Your task to perform on an android device: turn on sleep mode Image 0: 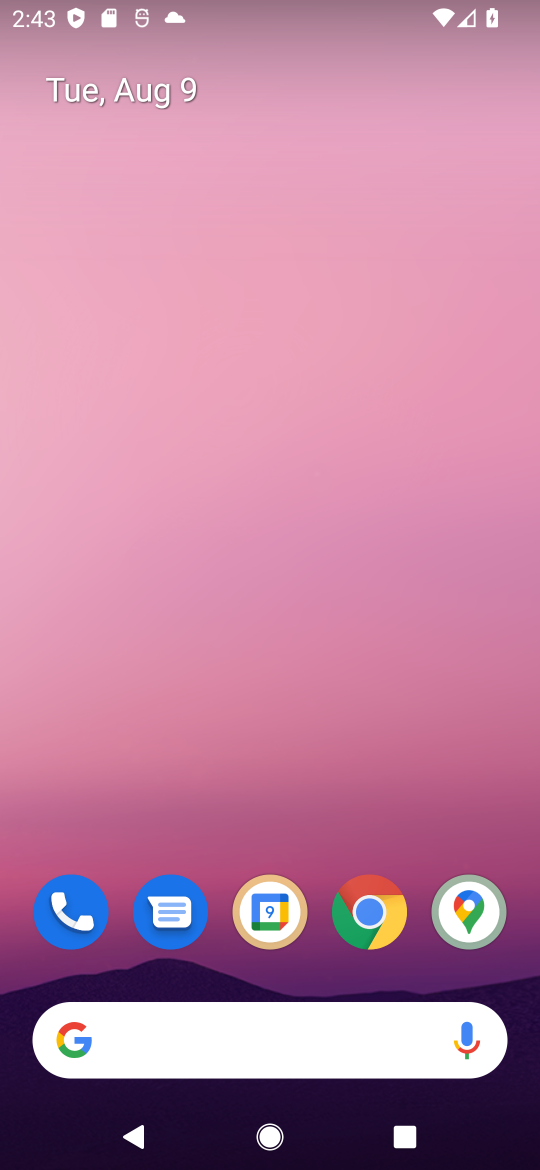
Step 0: drag from (307, 807) to (284, 18)
Your task to perform on an android device: turn on sleep mode Image 1: 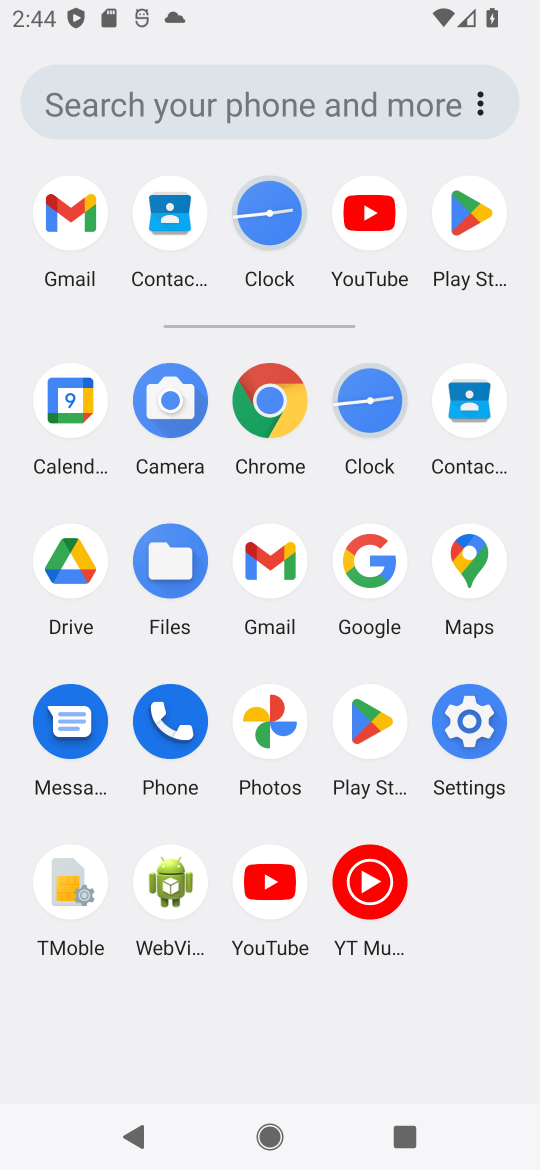
Step 1: click (477, 718)
Your task to perform on an android device: turn on sleep mode Image 2: 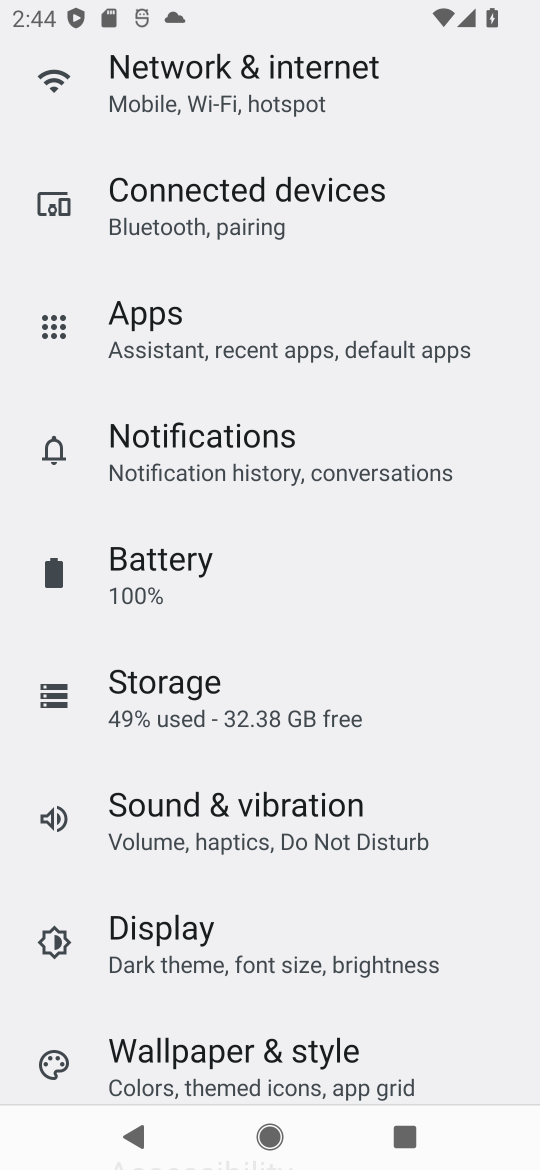
Step 2: click (177, 933)
Your task to perform on an android device: turn on sleep mode Image 3: 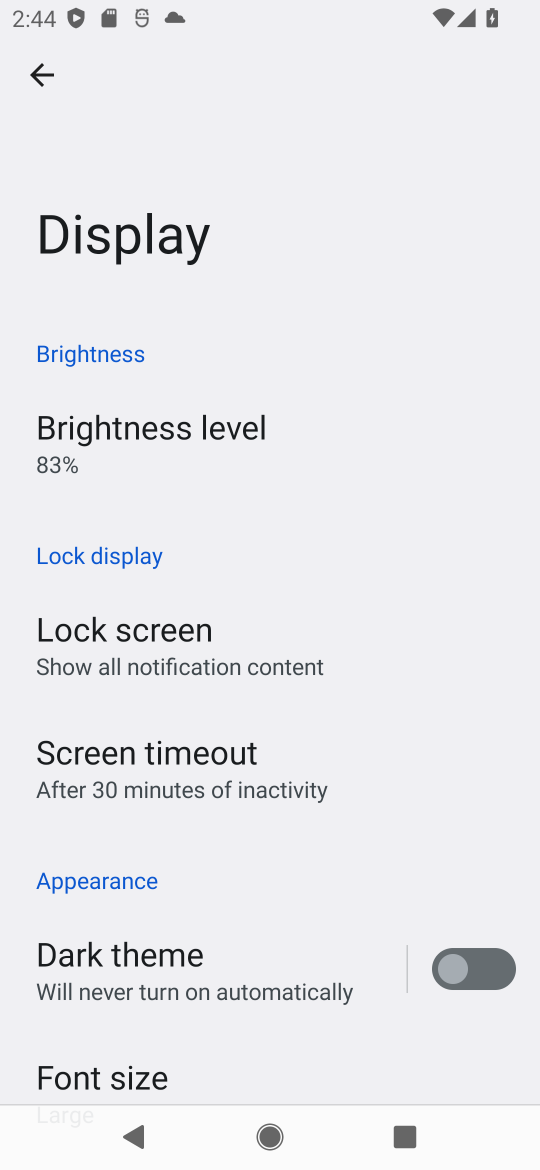
Step 3: task complete